Your task to perform on an android device: Search for Mexican restaurants on Maps Image 0: 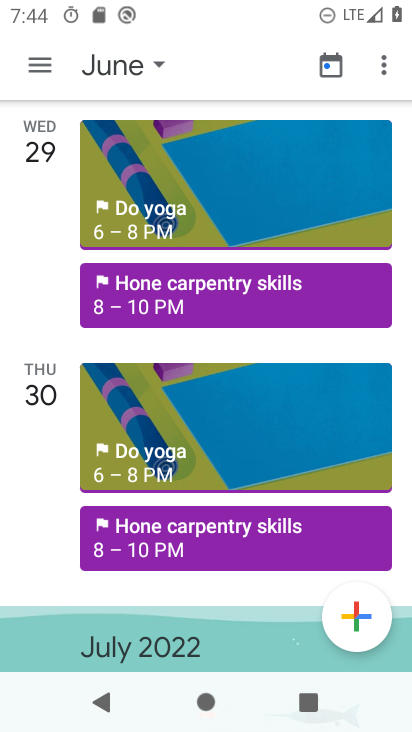
Step 0: press home button
Your task to perform on an android device: Search for Mexican restaurants on Maps Image 1: 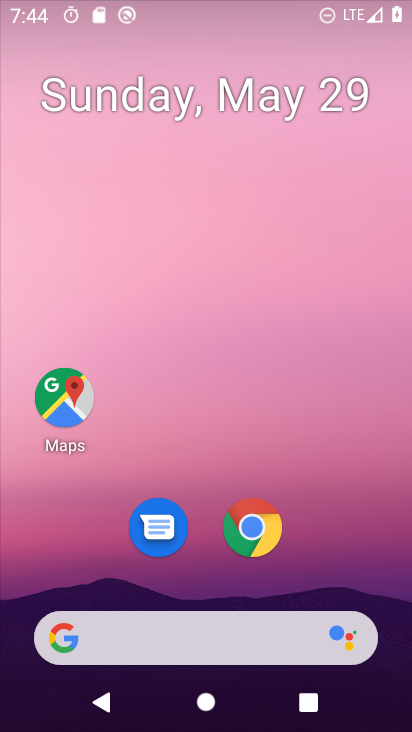
Step 1: drag from (383, 652) to (242, 63)
Your task to perform on an android device: Search for Mexican restaurants on Maps Image 2: 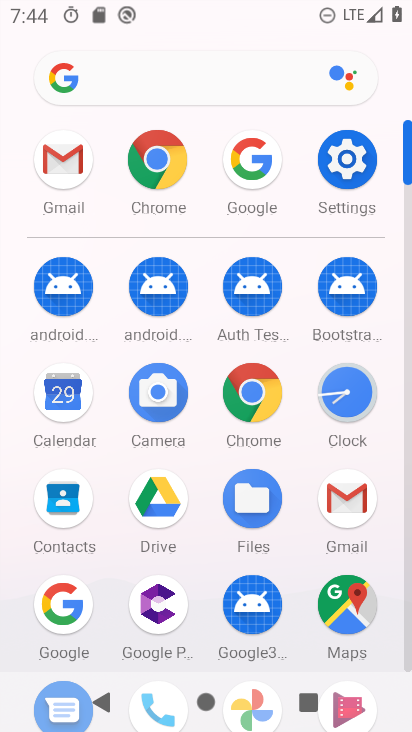
Step 2: click (352, 593)
Your task to perform on an android device: Search for Mexican restaurants on Maps Image 3: 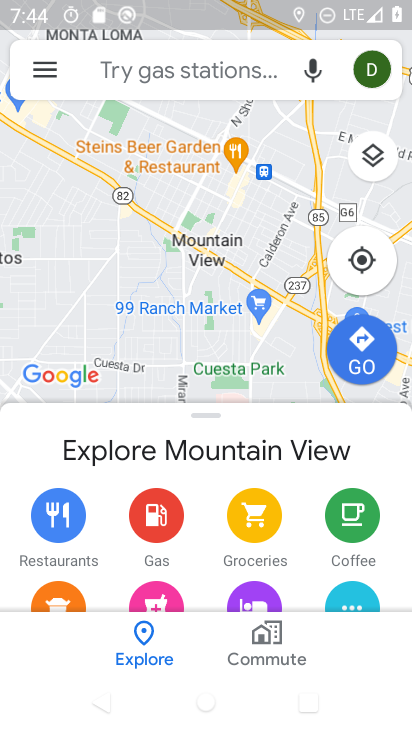
Step 3: click (106, 77)
Your task to perform on an android device: Search for Mexican restaurants on Maps Image 4: 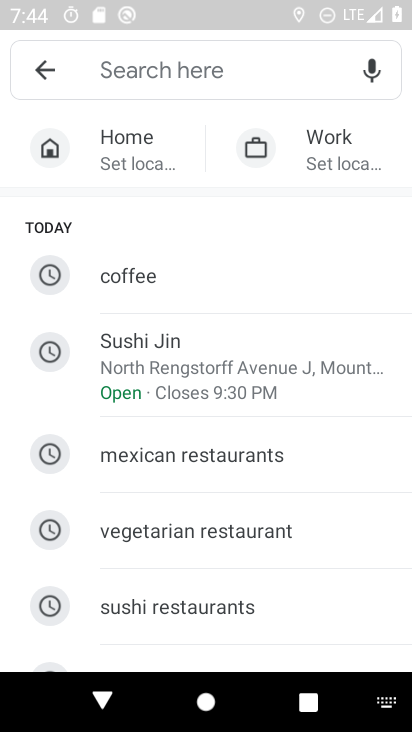
Step 4: click (219, 453)
Your task to perform on an android device: Search for Mexican restaurants on Maps Image 5: 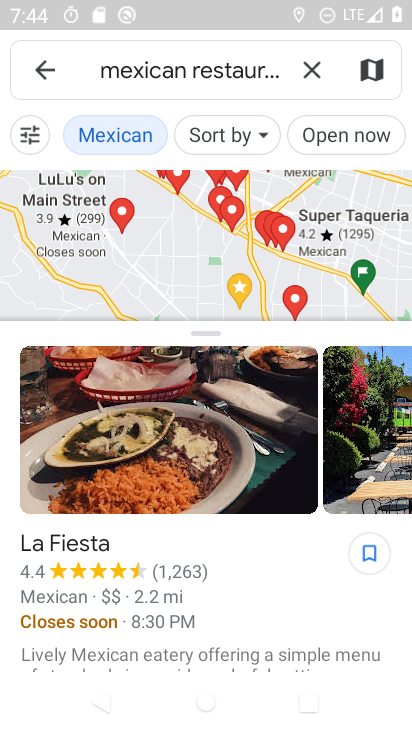
Step 5: task complete